Your task to perform on an android device: find snoozed emails in the gmail app Image 0: 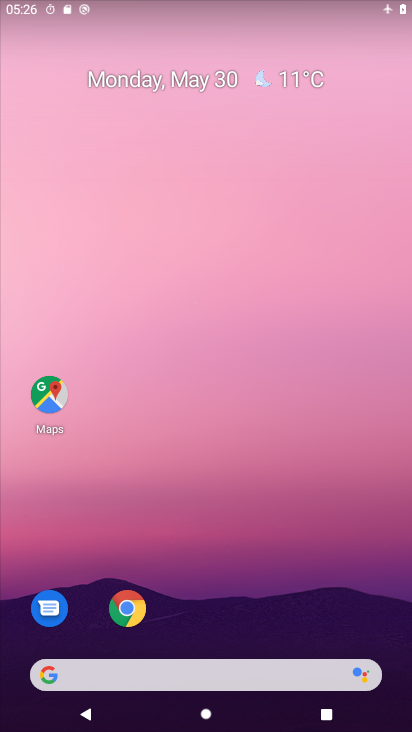
Step 0: drag from (289, 489) to (191, 15)
Your task to perform on an android device: find snoozed emails in the gmail app Image 1: 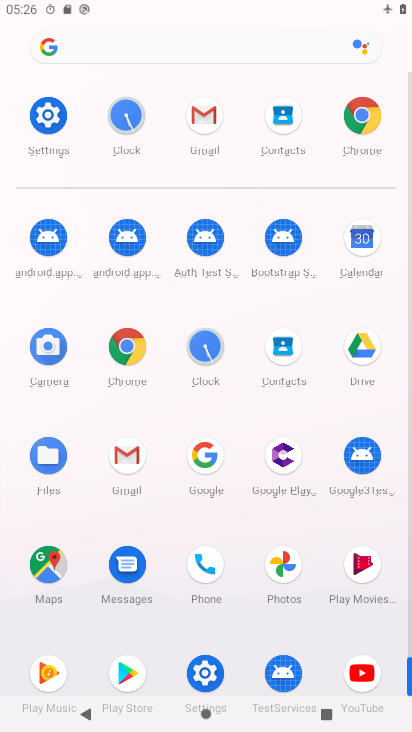
Step 1: click (120, 452)
Your task to perform on an android device: find snoozed emails in the gmail app Image 2: 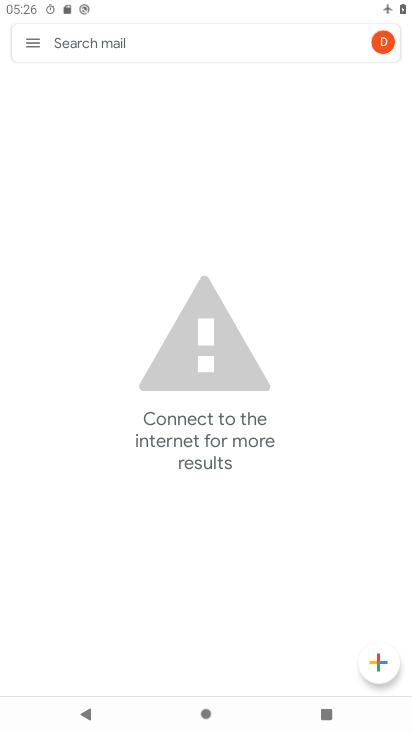
Step 2: click (33, 44)
Your task to perform on an android device: find snoozed emails in the gmail app Image 3: 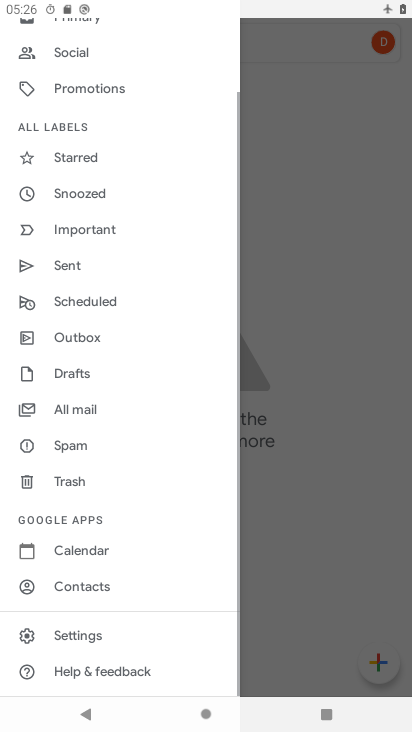
Step 3: click (104, 196)
Your task to perform on an android device: find snoozed emails in the gmail app Image 4: 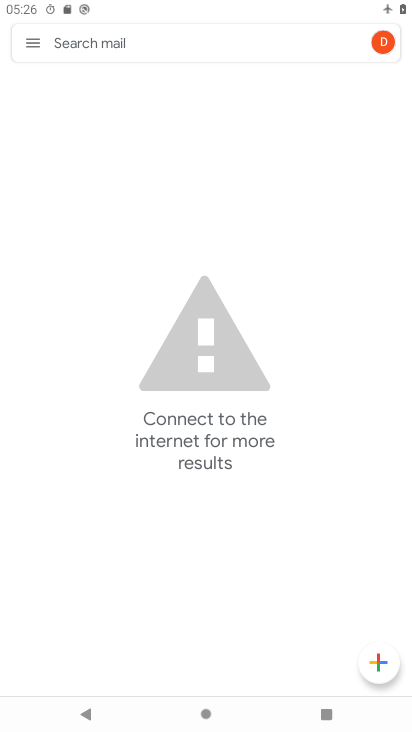
Step 4: task complete